Your task to perform on an android device: check google app version Image 0: 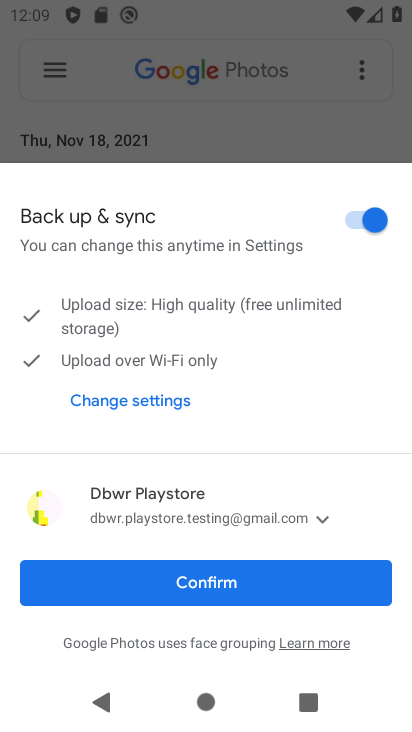
Step 0: press home button
Your task to perform on an android device: check google app version Image 1: 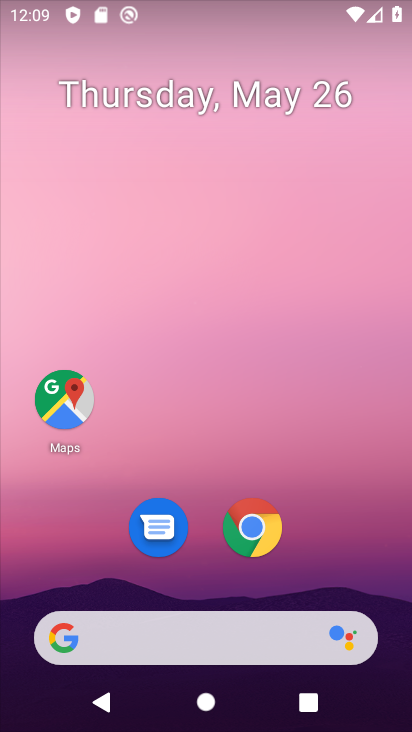
Step 1: drag from (191, 608) to (228, 14)
Your task to perform on an android device: check google app version Image 2: 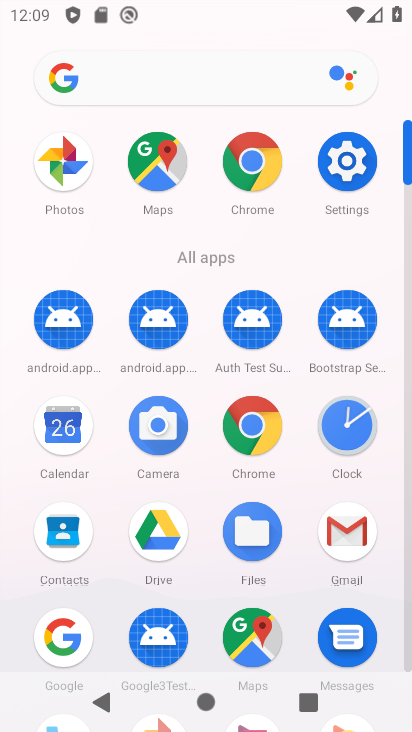
Step 2: click (364, 152)
Your task to perform on an android device: check google app version Image 3: 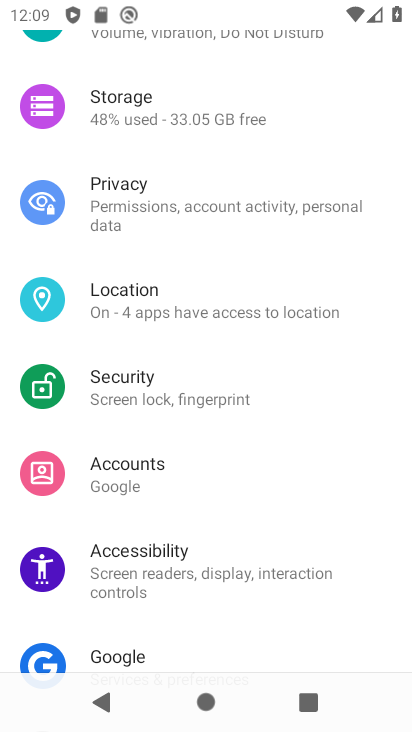
Step 3: drag from (381, 604) to (215, 98)
Your task to perform on an android device: check google app version Image 4: 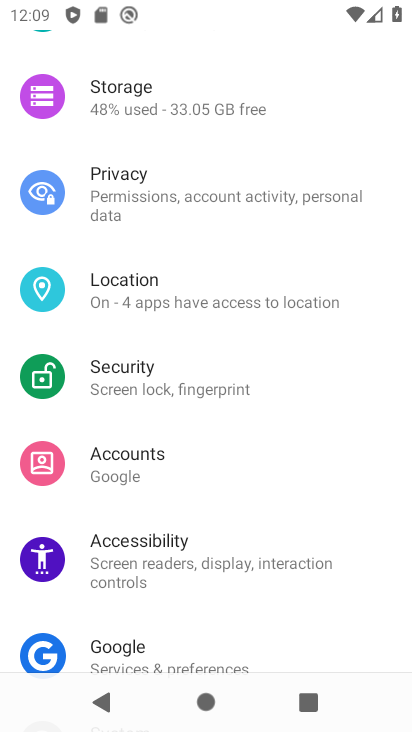
Step 4: click (116, 641)
Your task to perform on an android device: check google app version Image 5: 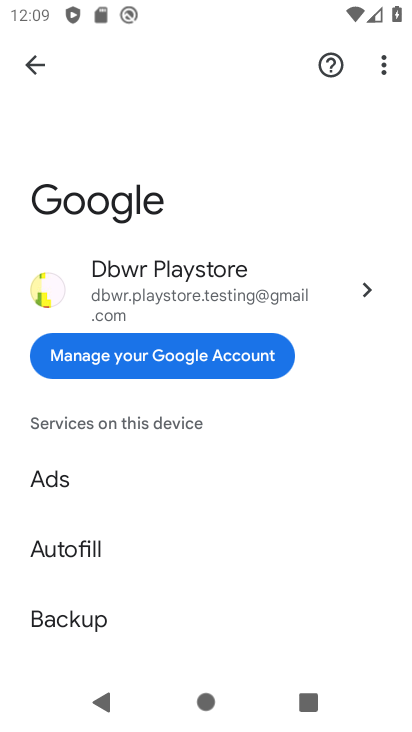
Step 5: task complete